Your task to perform on an android device: Open Maps and search for coffee Image 0: 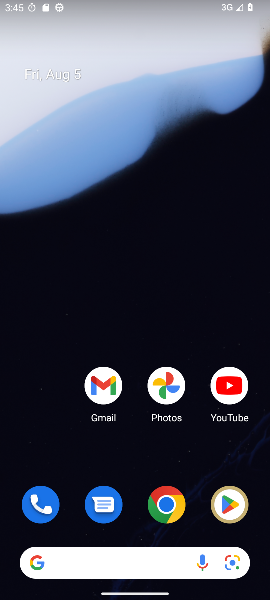
Step 0: drag from (83, 380) to (120, 203)
Your task to perform on an android device: Open Maps and search for coffee Image 1: 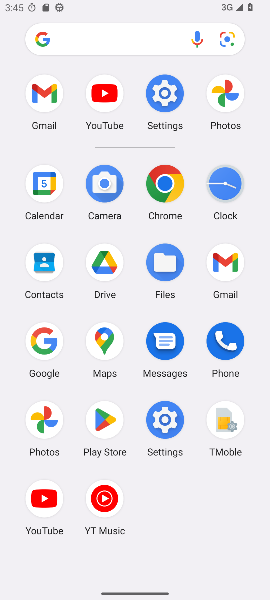
Step 1: click (109, 337)
Your task to perform on an android device: Open Maps and search for coffee Image 2: 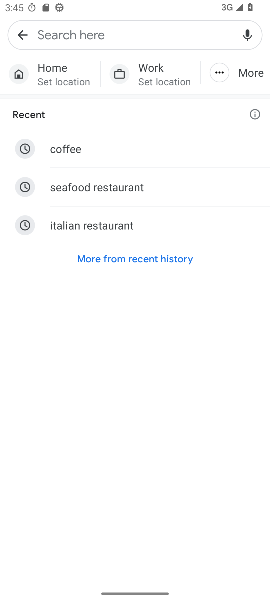
Step 2: click (24, 34)
Your task to perform on an android device: Open Maps and search for coffee Image 3: 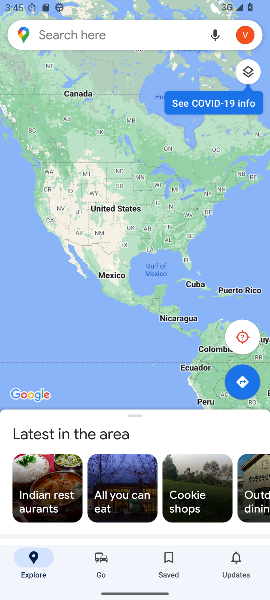
Step 3: click (59, 145)
Your task to perform on an android device: Open Maps and search for coffee Image 4: 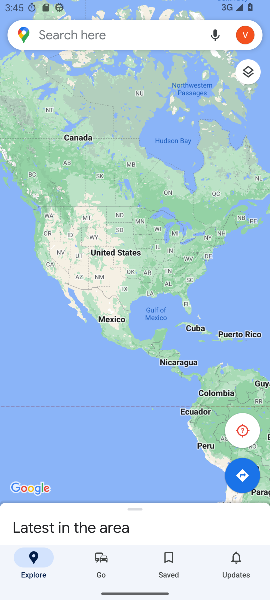
Step 4: click (64, 25)
Your task to perform on an android device: Open Maps and search for coffee Image 5: 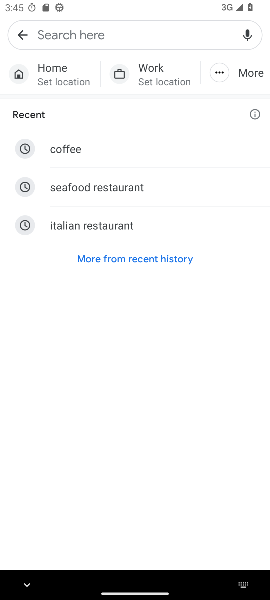
Step 5: click (70, 143)
Your task to perform on an android device: Open Maps and search for coffee Image 6: 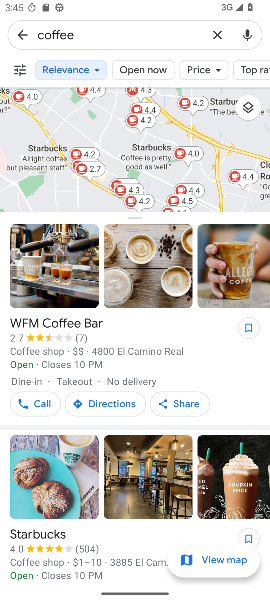
Step 6: task complete